Your task to perform on an android device: delete browsing data in the chrome app Image 0: 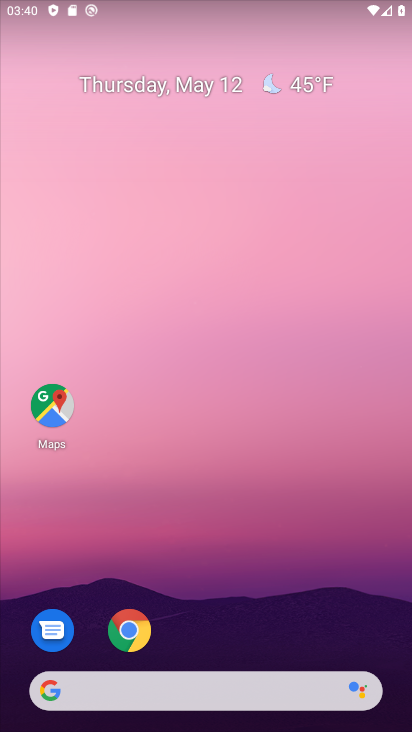
Step 0: click (113, 628)
Your task to perform on an android device: delete browsing data in the chrome app Image 1: 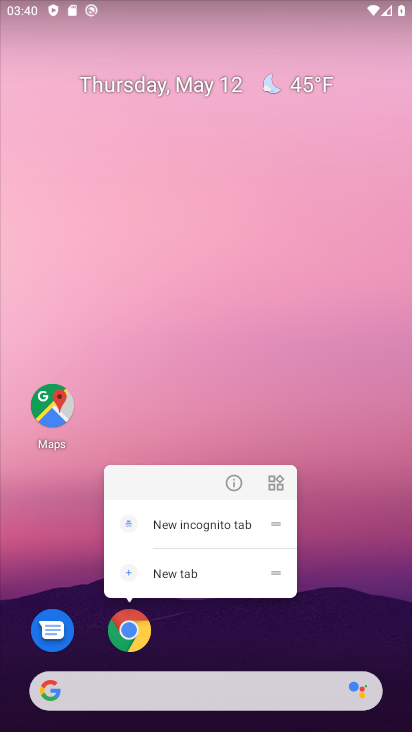
Step 1: click (126, 626)
Your task to perform on an android device: delete browsing data in the chrome app Image 2: 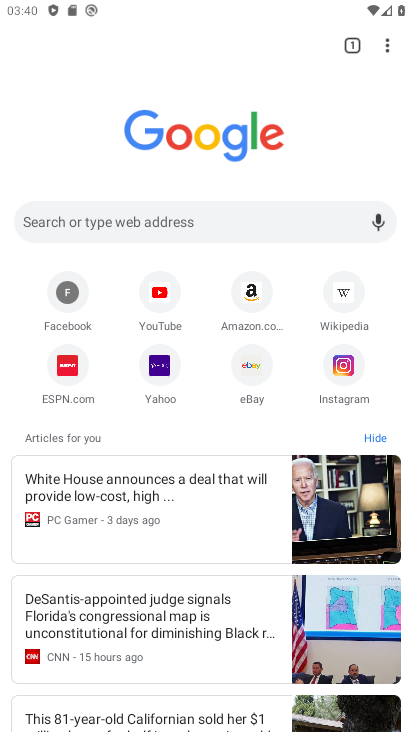
Step 2: click (397, 37)
Your task to perform on an android device: delete browsing data in the chrome app Image 3: 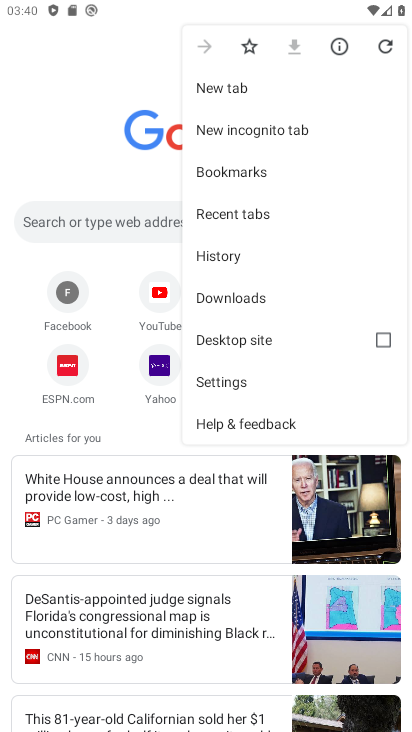
Step 3: click (245, 392)
Your task to perform on an android device: delete browsing data in the chrome app Image 4: 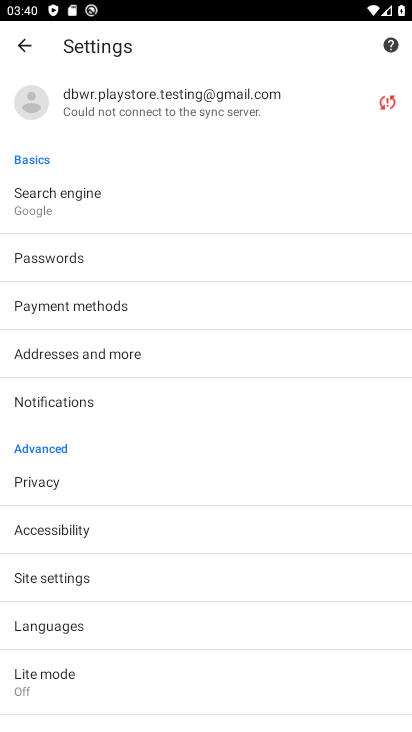
Step 4: click (15, 48)
Your task to perform on an android device: delete browsing data in the chrome app Image 5: 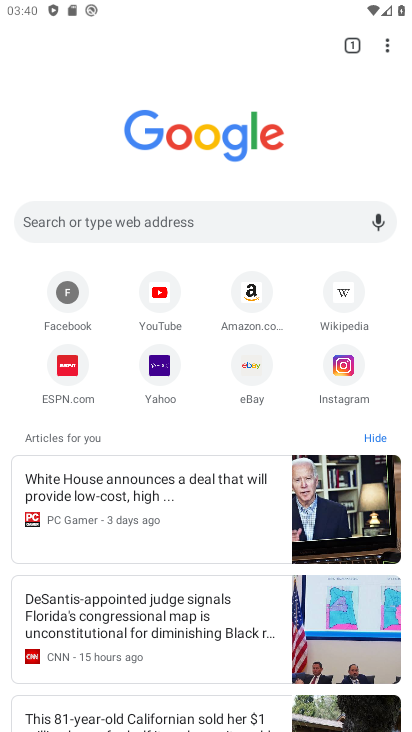
Step 5: click (397, 47)
Your task to perform on an android device: delete browsing data in the chrome app Image 6: 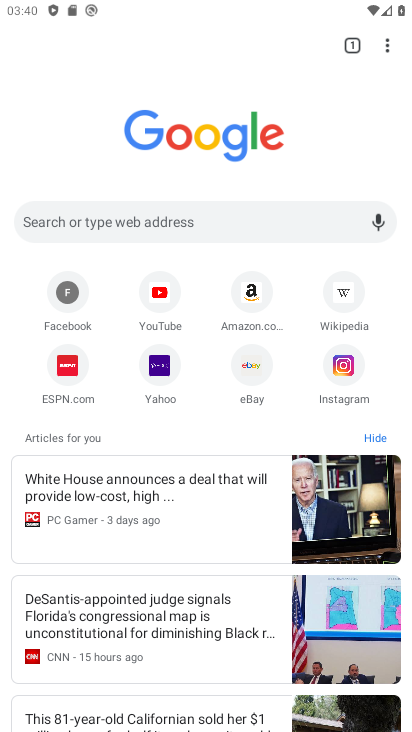
Step 6: click (385, 49)
Your task to perform on an android device: delete browsing data in the chrome app Image 7: 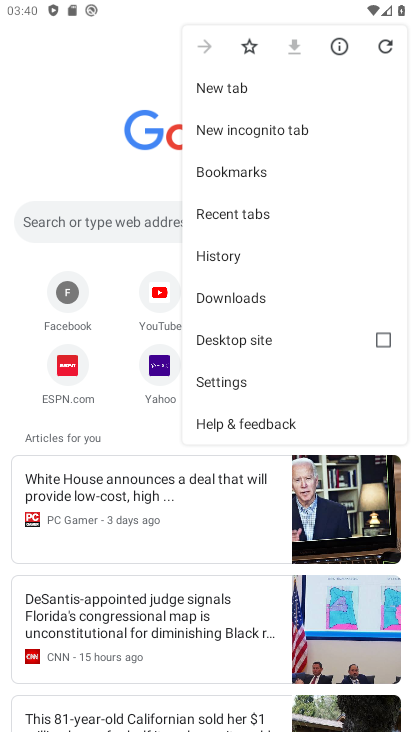
Step 7: click (217, 256)
Your task to perform on an android device: delete browsing data in the chrome app Image 8: 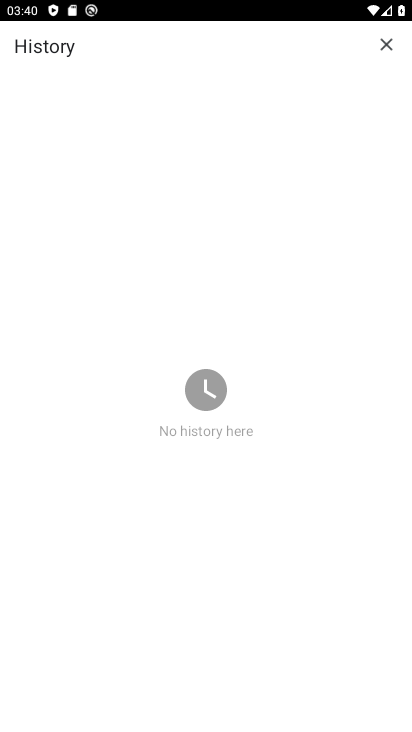
Step 8: task complete